Your task to perform on an android device: Open Chrome and go to the settings page Image 0: 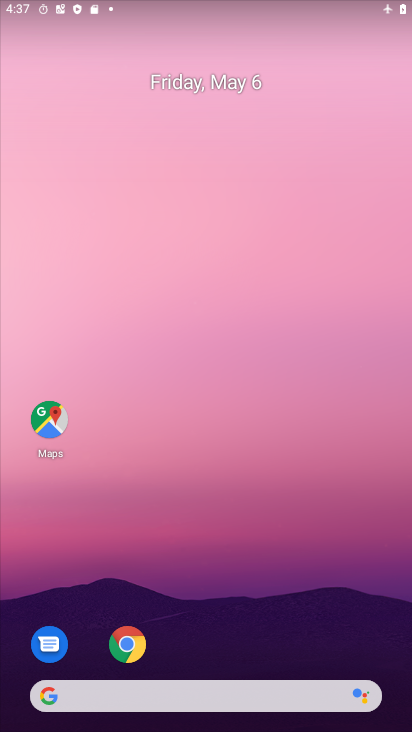
Step 0: drag from (264, 593) to (118, 116)
Your task to perform on an android device: Open Chrome and go to the settings page Image 1: 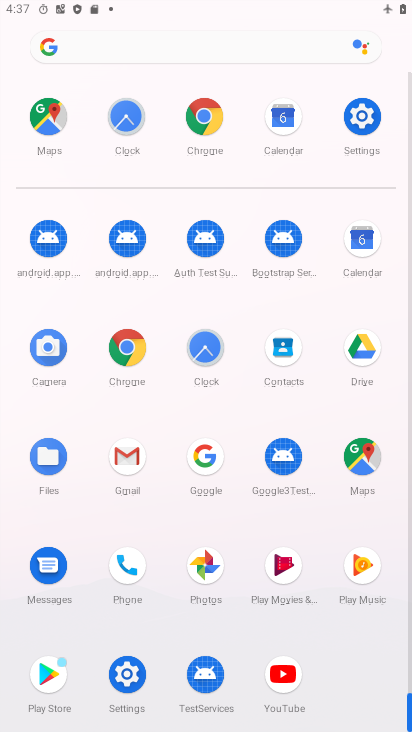
Step 1: click (358, 114)
Your task to perform on an android device: Open Chrome and go to the settings page Image 2: 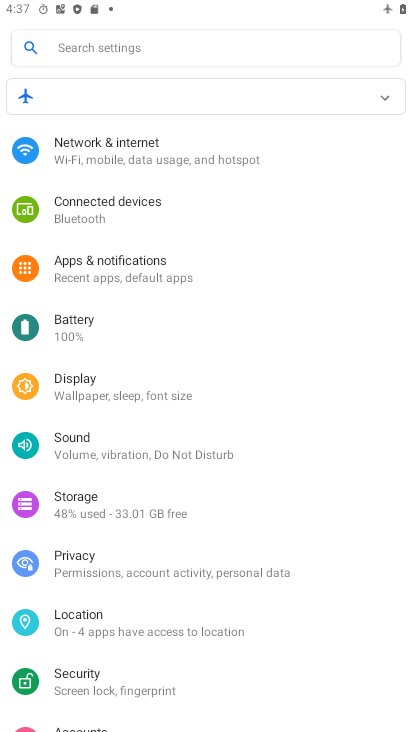
Step 2: press home button
Your task to perform on an android device: Open Chrome and go to the settings page Image 3: 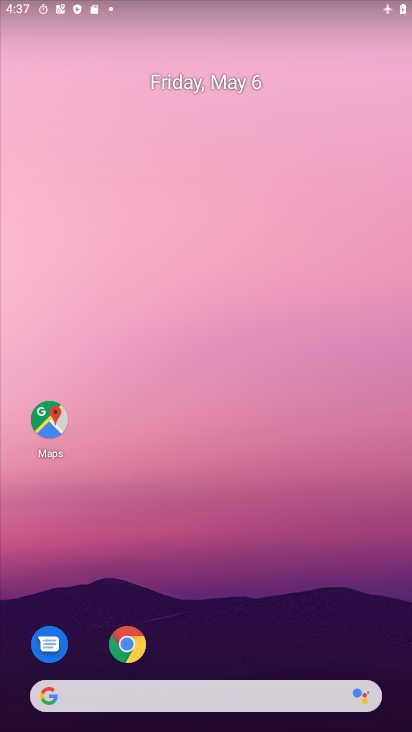
Step 3: drag from (228, 636) to (147, 5)
Your task to perform on an android device: Open Chrome and go to the settings page Image 4: 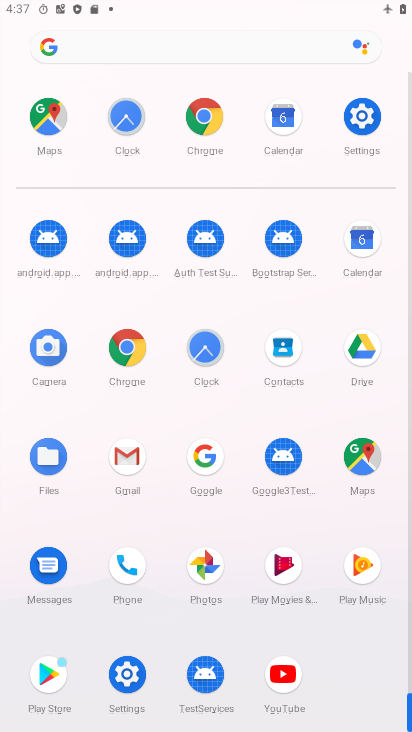
Step 4: click (364, 123)
Your task to perform on an android device: Open Chrome and go to the settings page Image 5: 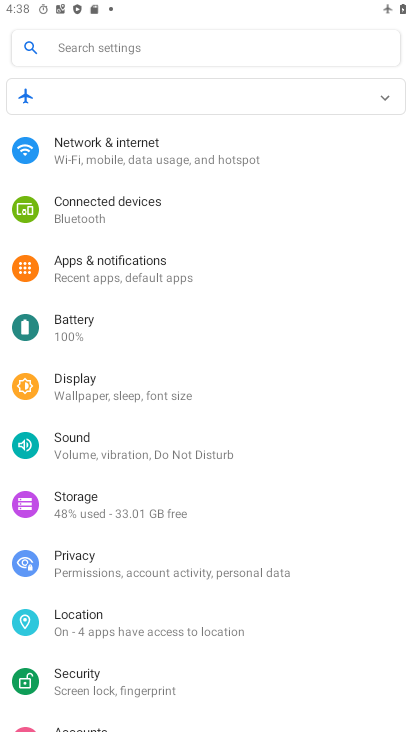
Step 5: press home button
Your task to perform on an android device: Open Chrome and go to the settings page Image 6: 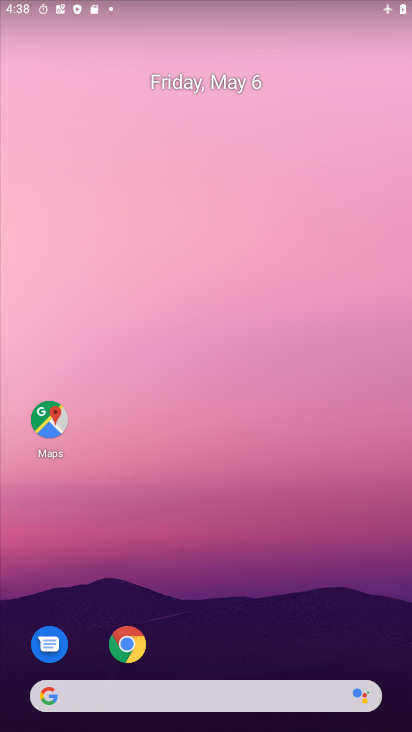
Step 6: drag from (239, 452) to (157, 11)
Your task to perform on an android device: Open Chrome and go to the settings page Image 7: 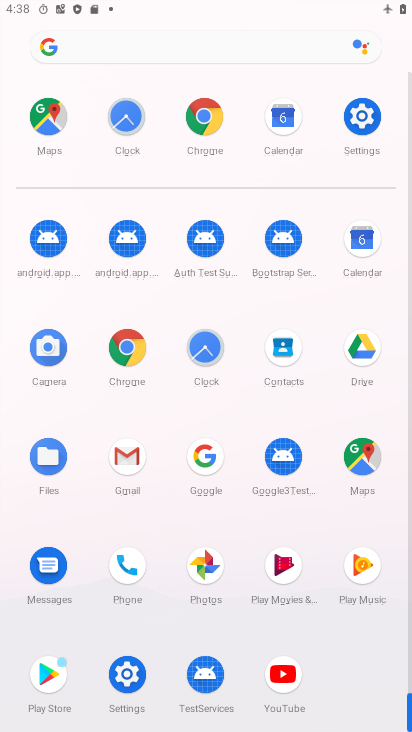
Step 7: click (204, 113)
Your task to perform on an android device: Open Chrome and go to the settings page Image 8: 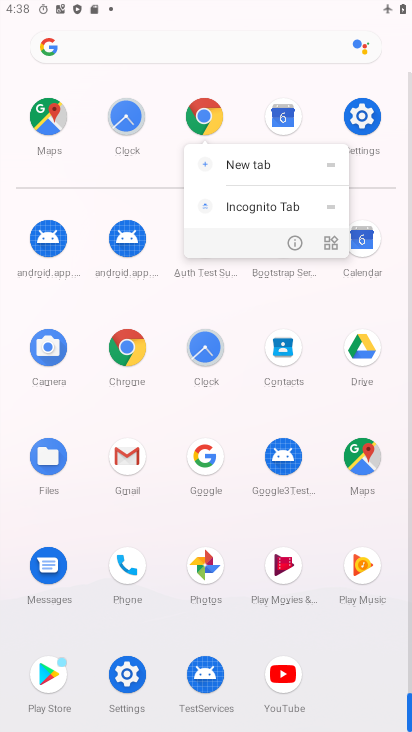
Step 8: click (204, 113)
Your task to perform on an android device: Open Chrome and go to the settings page Image 9: 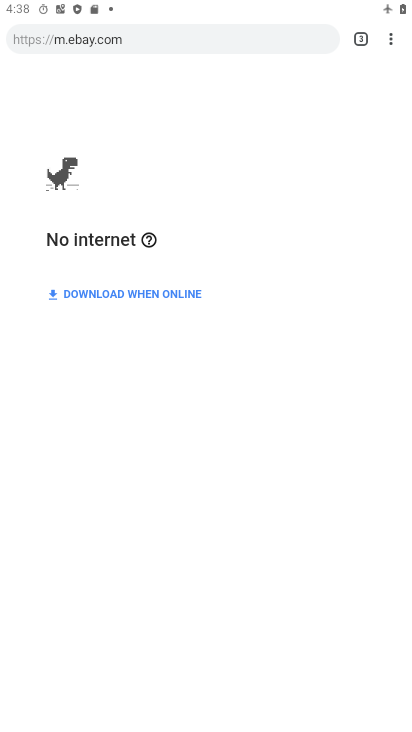
Step 9: task complete